Your task to perform on an android device: What is the news today? Image 0: 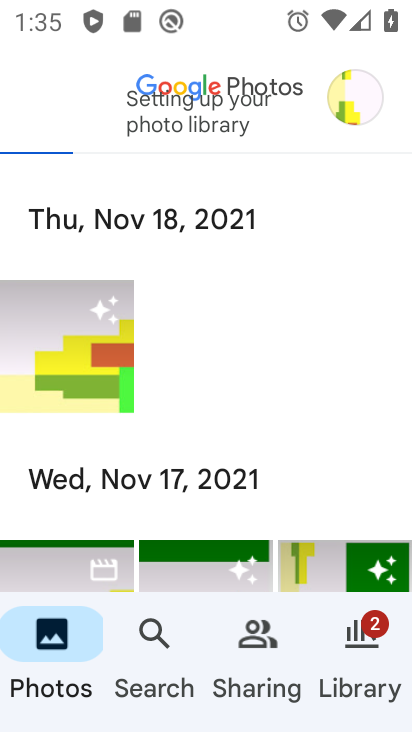
Step 0: press home button
Your task to perform on an android device: What is the news today? Image 1: 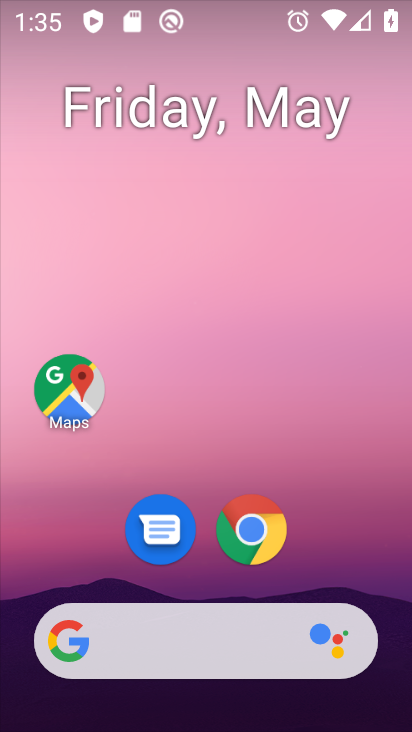
Step 1: task complete